Your task to perform on an android device: Open notification settings Image 0: 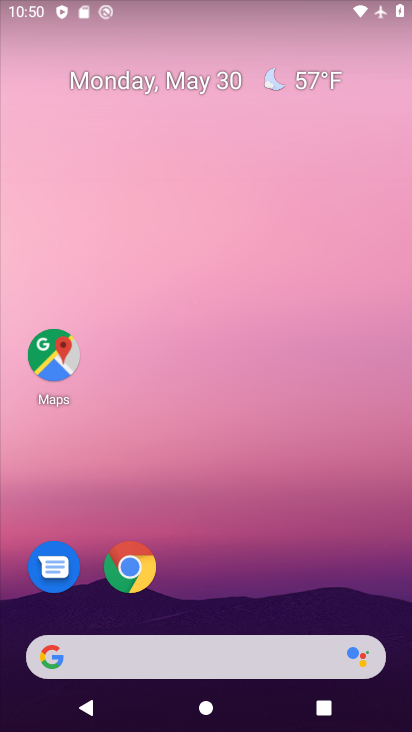
Step 0: drag from (185, 604) to (204, 226)
Your task to perform on an android device: Open notification settings Image 1: 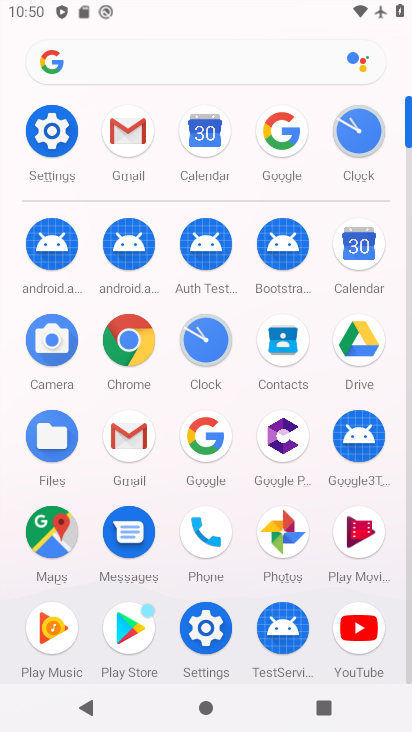
Step 1: click (39, 139)
Your task to perform on an android device: Open notification settings Image 2: 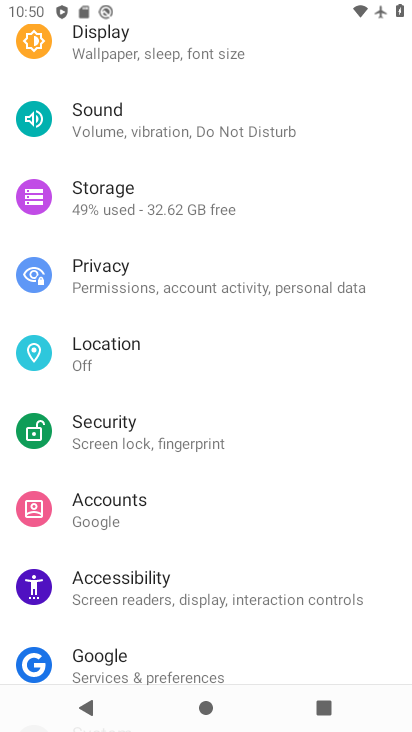
Step 2: drag from (194, 285) to (231, 565)
Your task to perform on an android device: Open notification settings Image 3: 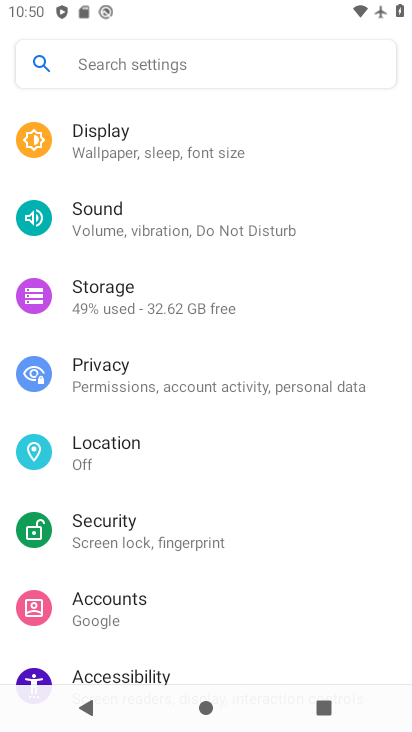
Step 3: drag from (214, 224) to (210, 497)
Your task to perform on an android device: Open notification settings Image 4: 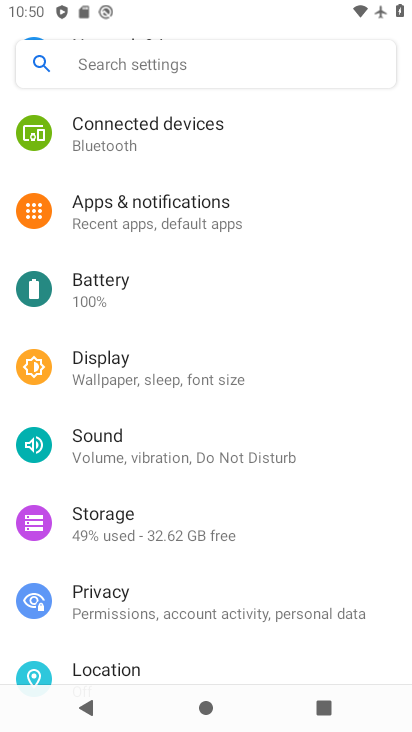
Step 4: click (170, 187)
Your task to perform on an android device: Open notification settings Image 5: 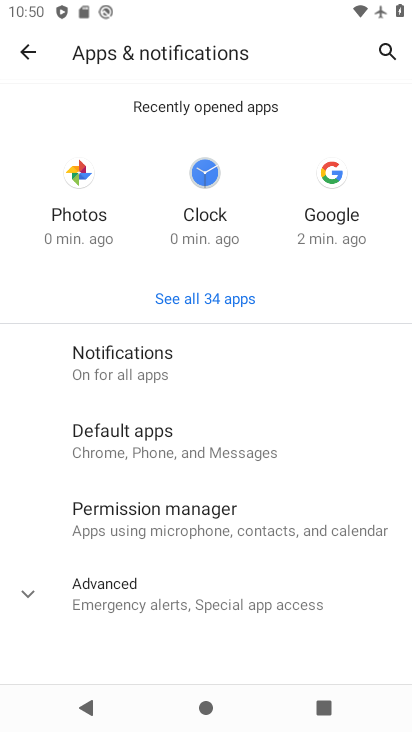
Step 5: click (128, 377)
Your task to perform on an android device: Open notification settings Image 6: 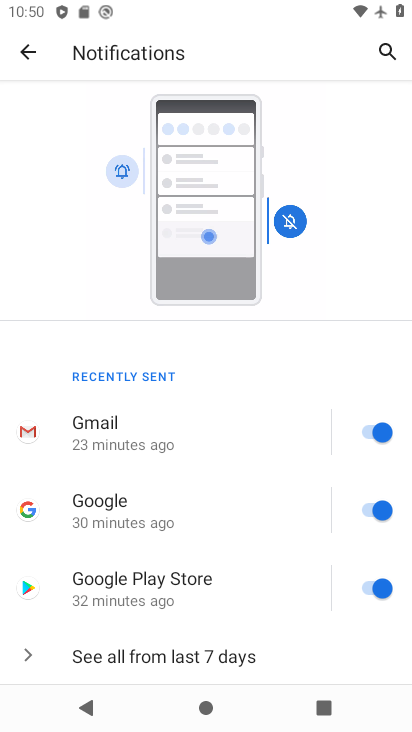
Step 6: task complete